Your task to perform on an android device: toggle wifi Image 0: 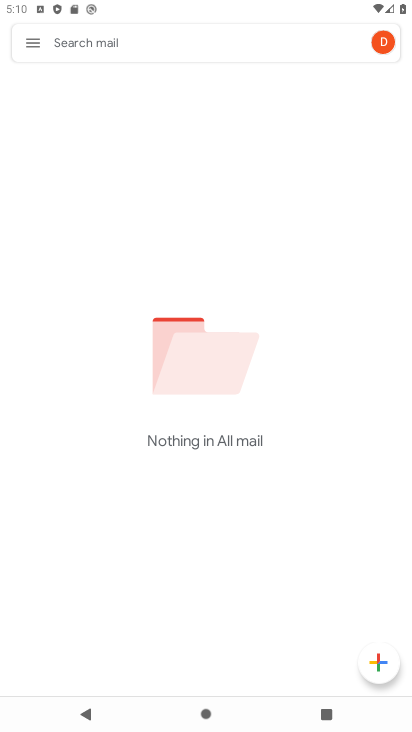
Step 0: press home button
Your task to perform on an android device: toggle wifi Image 1: 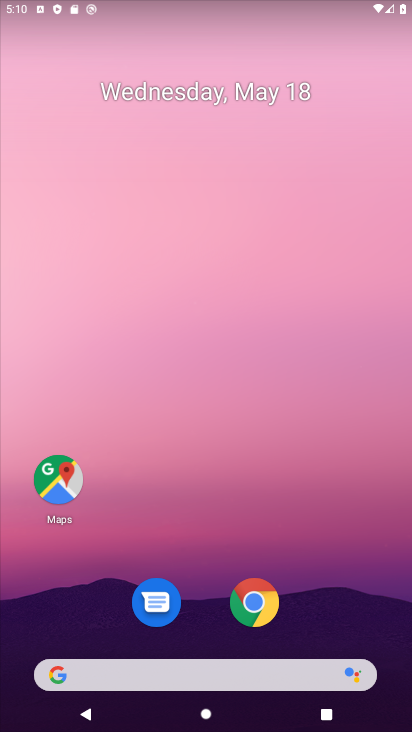
Step 1: drag from (204, 667) to (208, 18)
Your task to perform on an android device: toggle wifi Image 2: 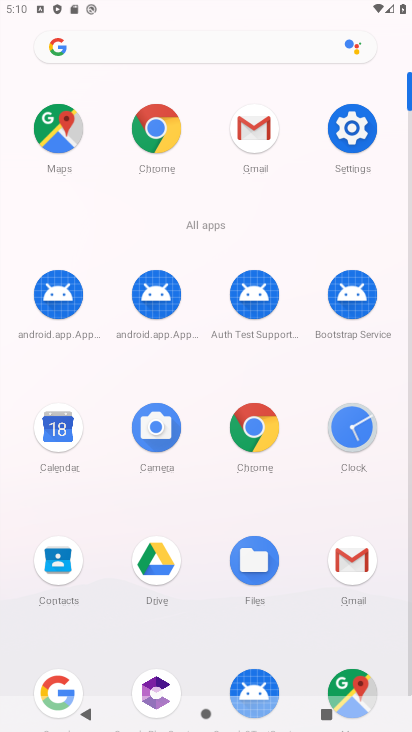
Step 2: click (351, 129)
Your task to perform on an android device: toggle wifi Image 3: 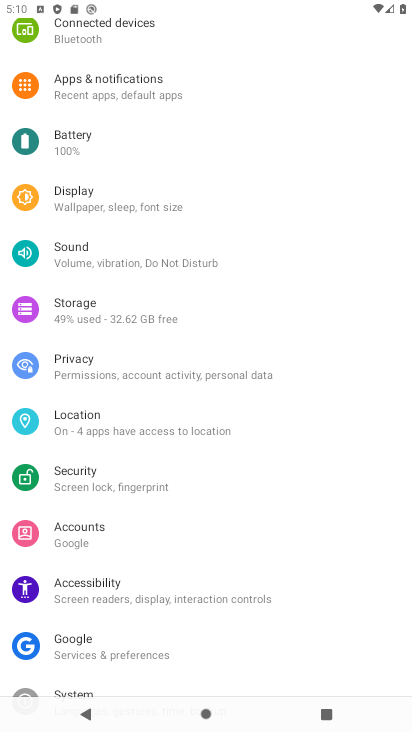
Step 3: drag from (159, 158) to (130, 723)
Your task to perform on an android device: toggle wifi Image 4: 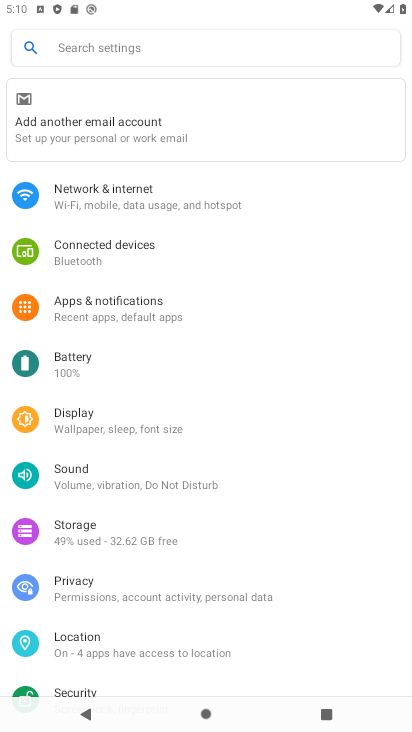
Step 4: click (125, 203)
Your task to perform on an android device: toggle wifi Image 5: 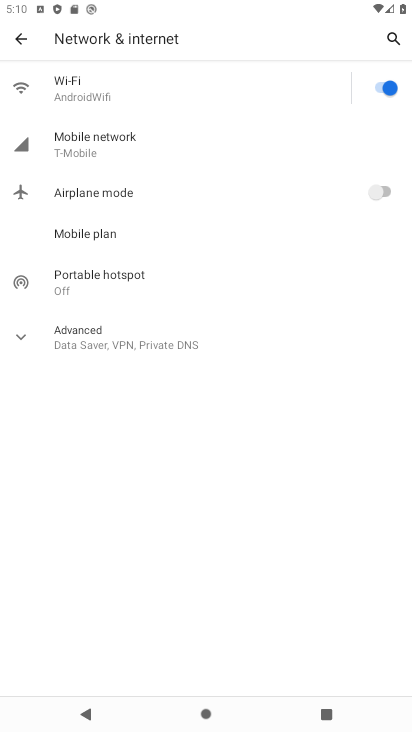
Step 5: click (389, 93)
Your task to perform on an android device: toggle wifi Image 6: 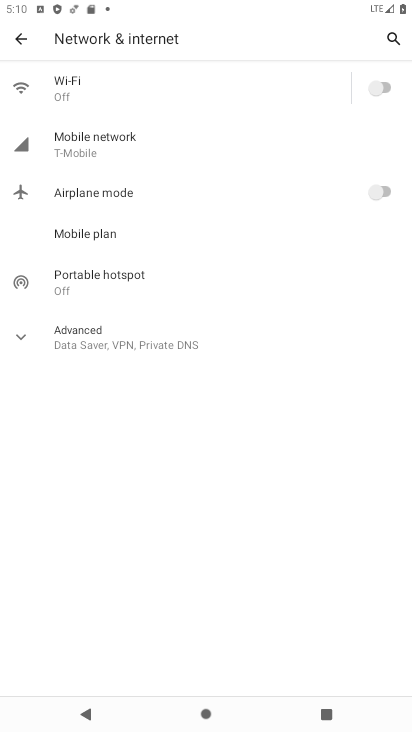
Step 6: task complete